Your task to perform on an android device: Open the calendar app, open the side menu, and click the "Day" option Image 0: 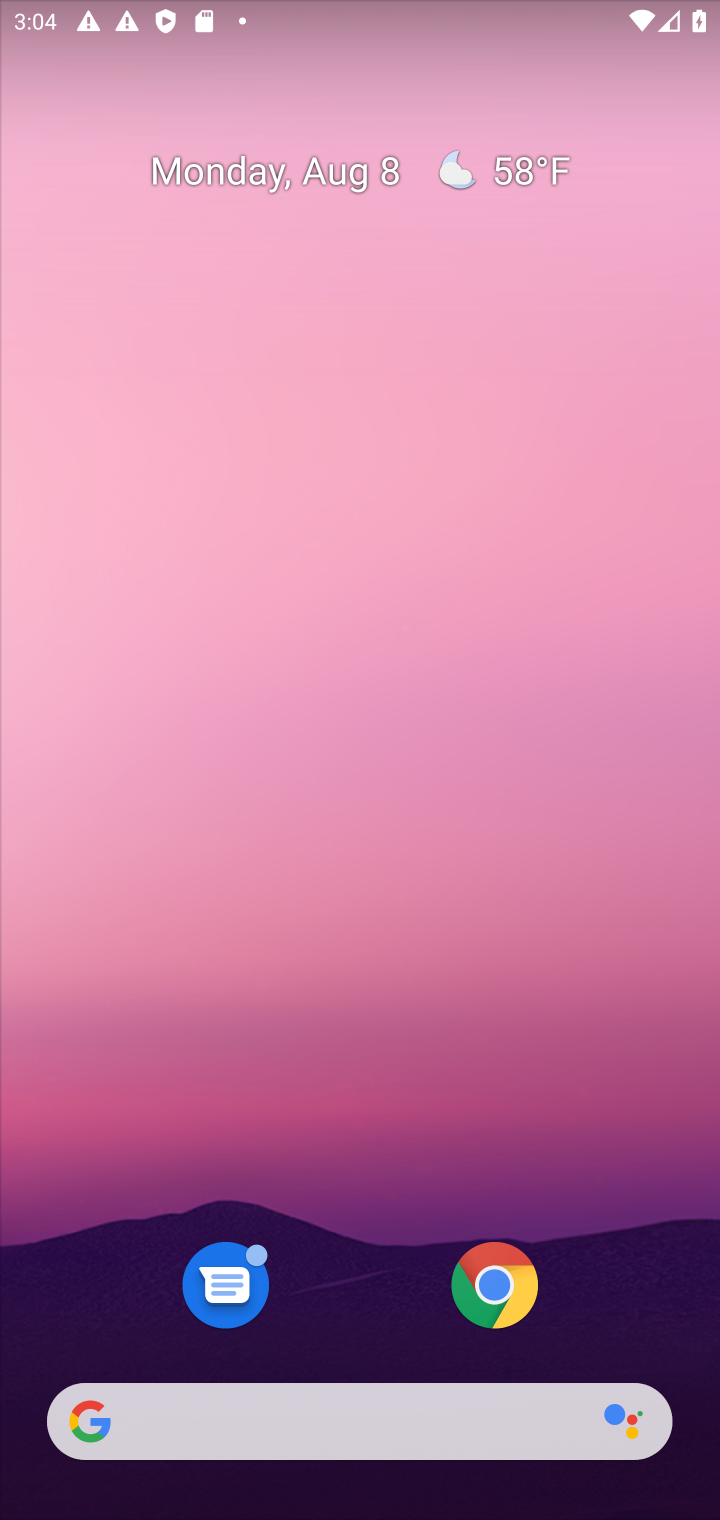
Step 0: drag from (357, 1211) to (514, 288)
Your task to perform on an android device: Open the calendar app, open the side menu, and click the "Day" option Image 1: 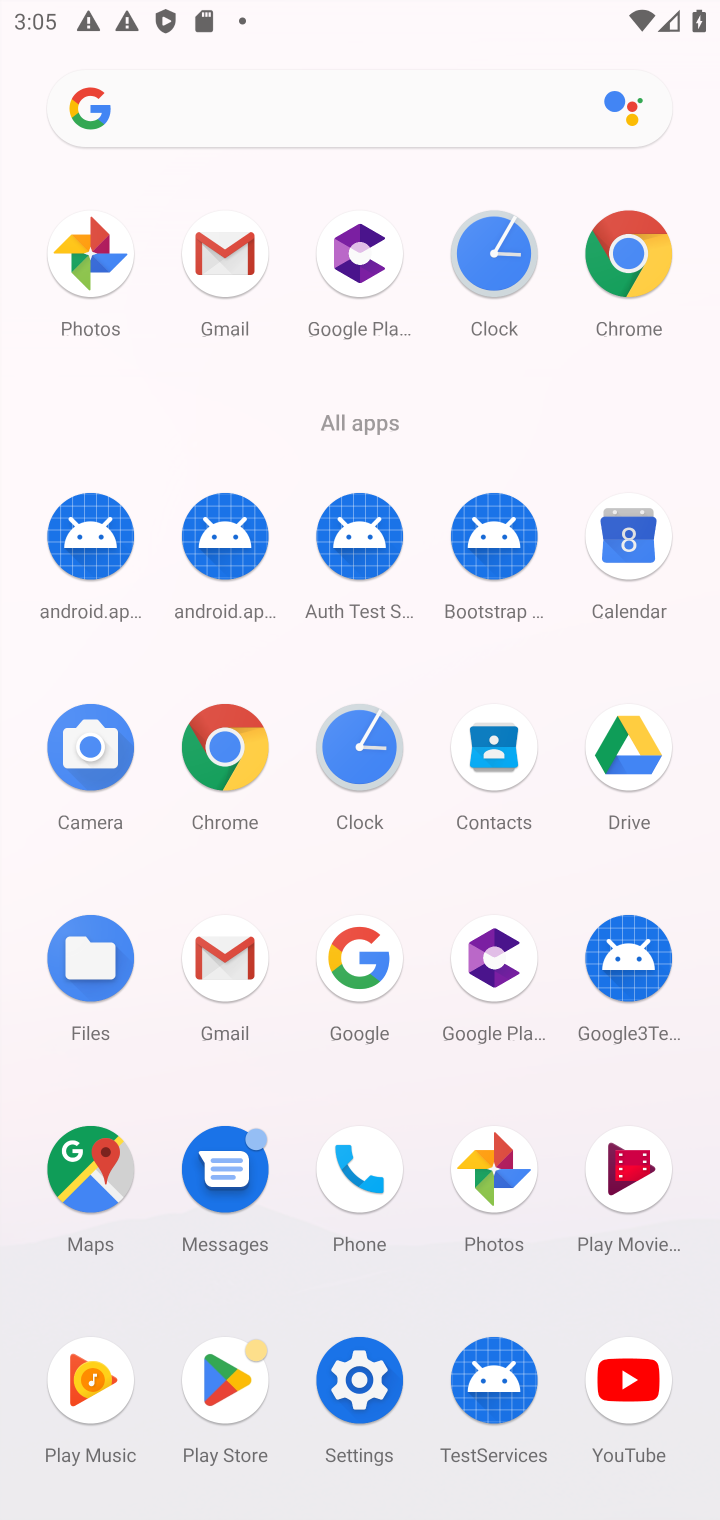
Step 1: click (631, 557)
Your task to perform on an android device: Open the calendar app, open the side menu, and click the "Day" option Image 2: 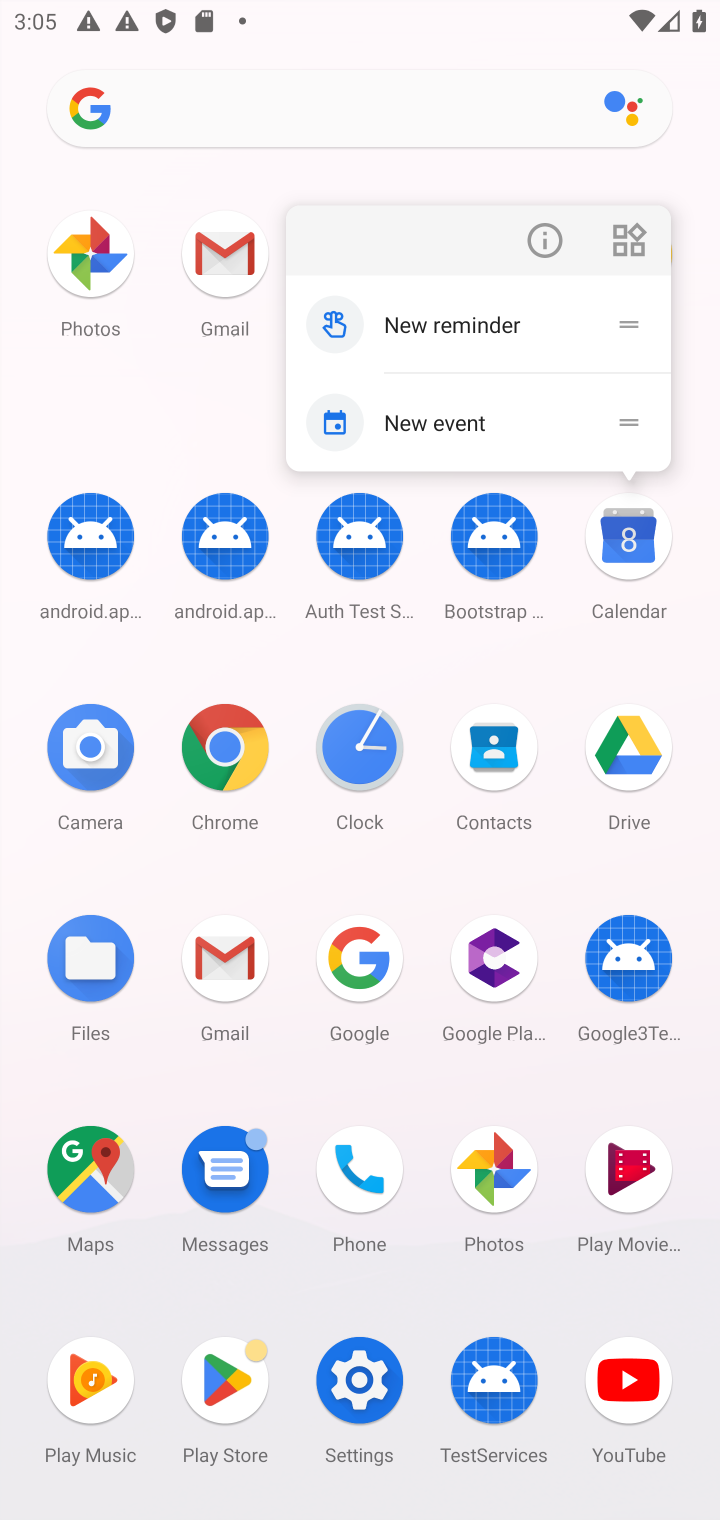
Step 2: click (631, 530)
Your task to perform on an android device: Open the calendar app, open the side menu, and click the "Day" option Image 3: 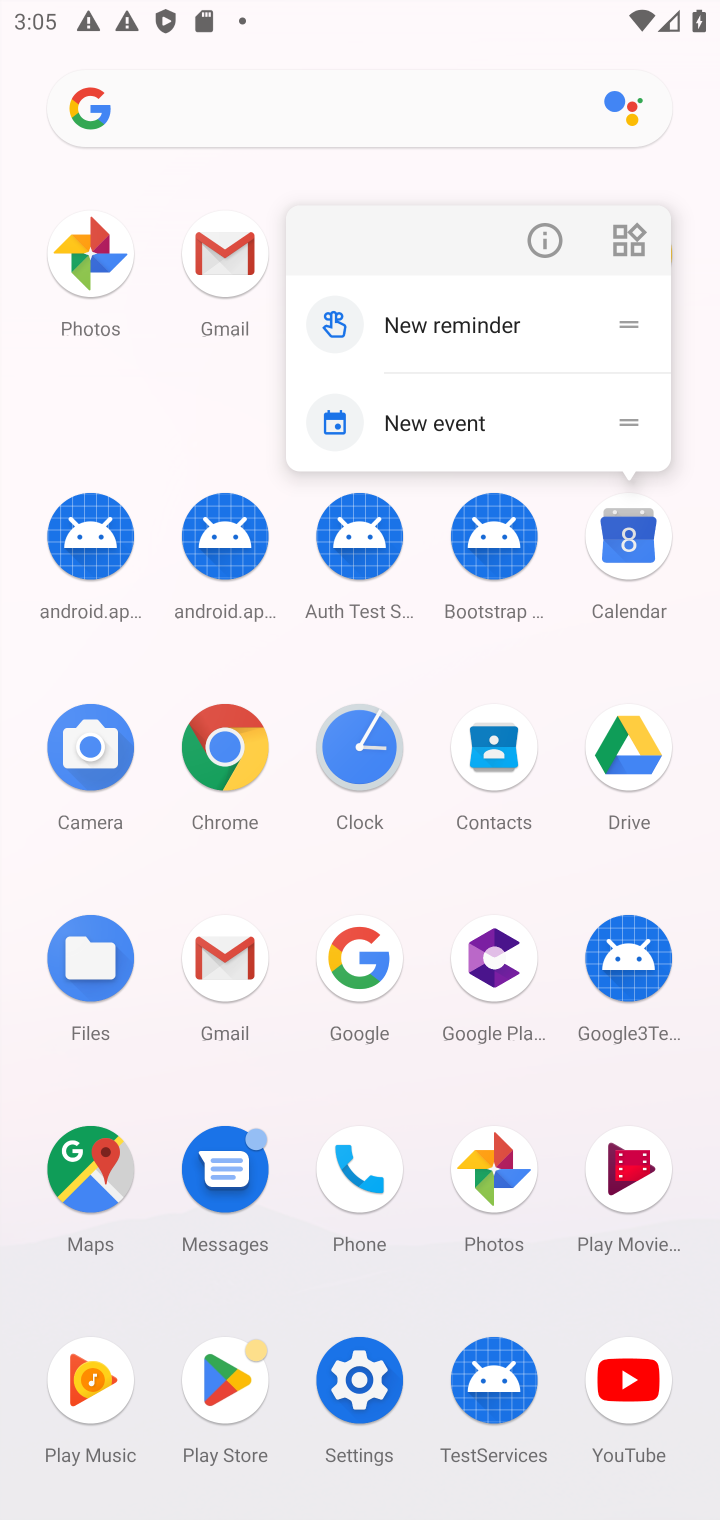
Step 3: click (630, 528)
Your task to perform on an android device: Open the calendar app, open the side menu, and click the "Day" option Image 4: 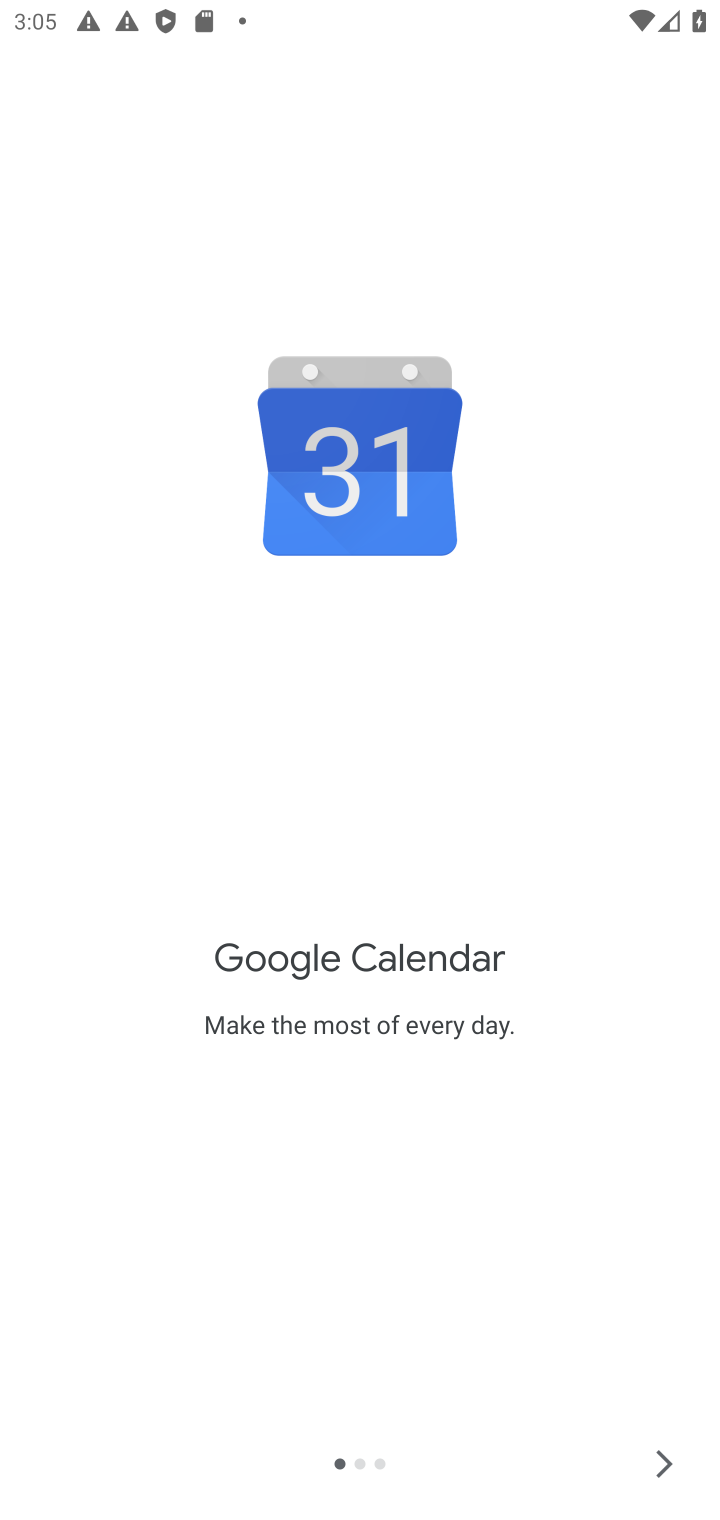
Step 4: click (692, 1467)
Your task to perform on an android device: Open the calendar app, open the side menu, and click the "Day" option Image 5: 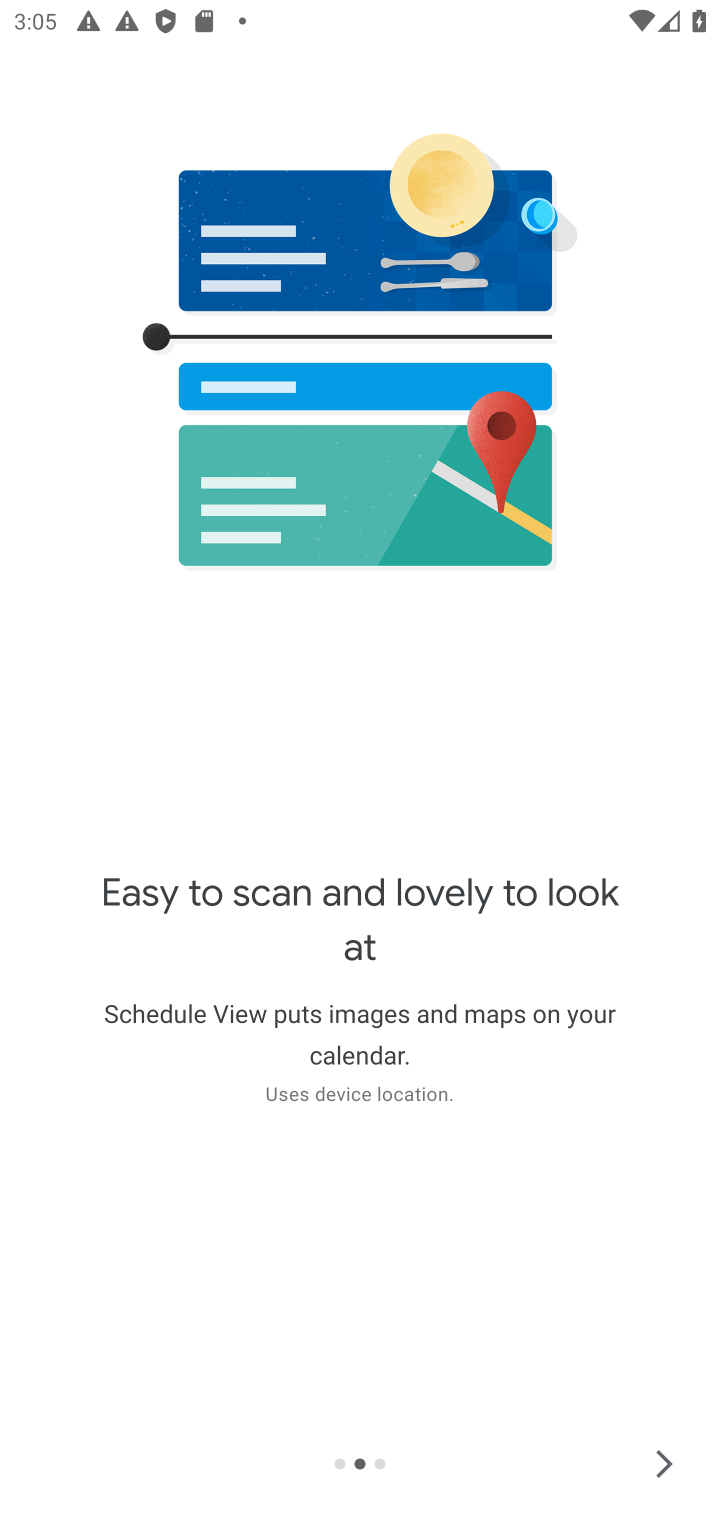
Step 5: click (655, 1451)
Your task to perform on an android device: Open the calendar app, open the side menu, and click the "Day" option Image 6: 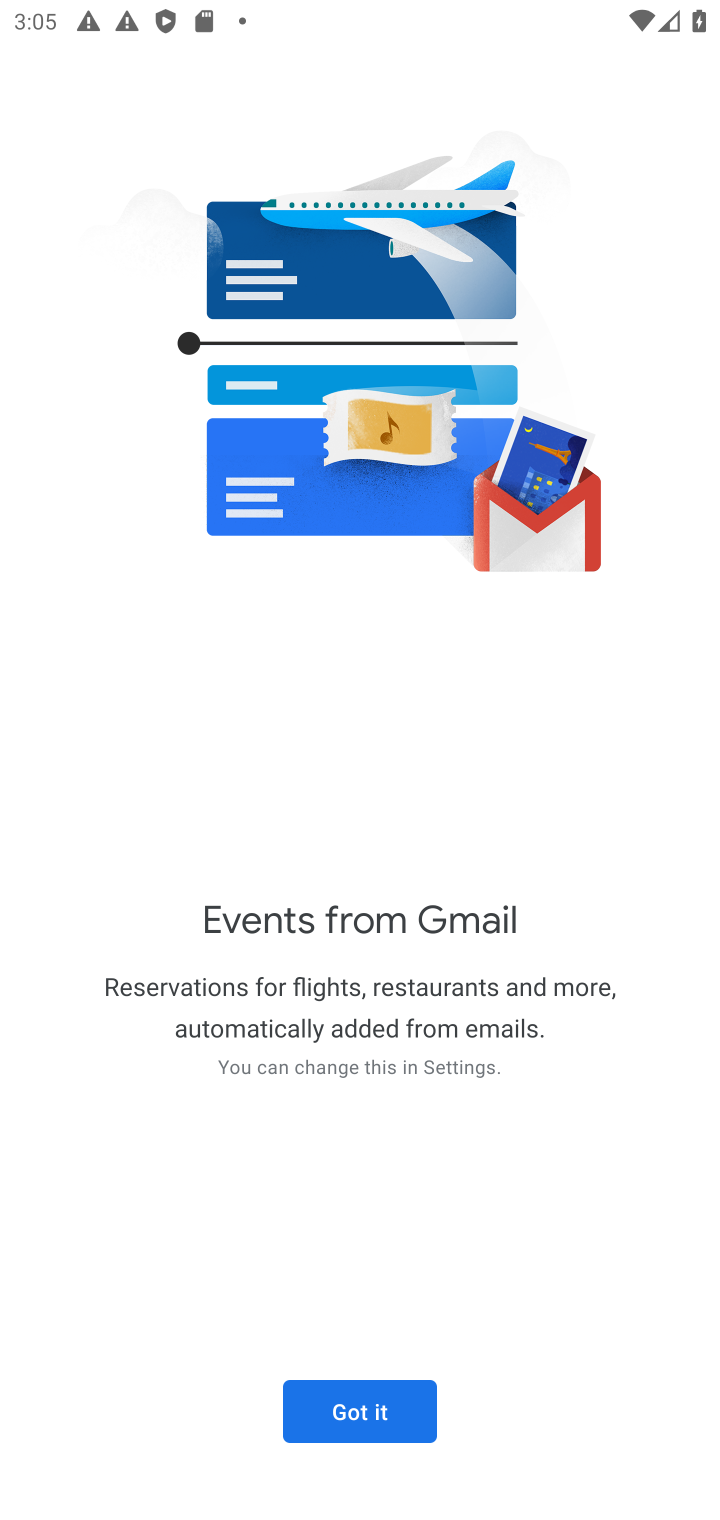
Step 6: click (353, 1414)
Your task to perform on an android device: Open the calendar app, open the side menu, and click the "Day" option Image 7: 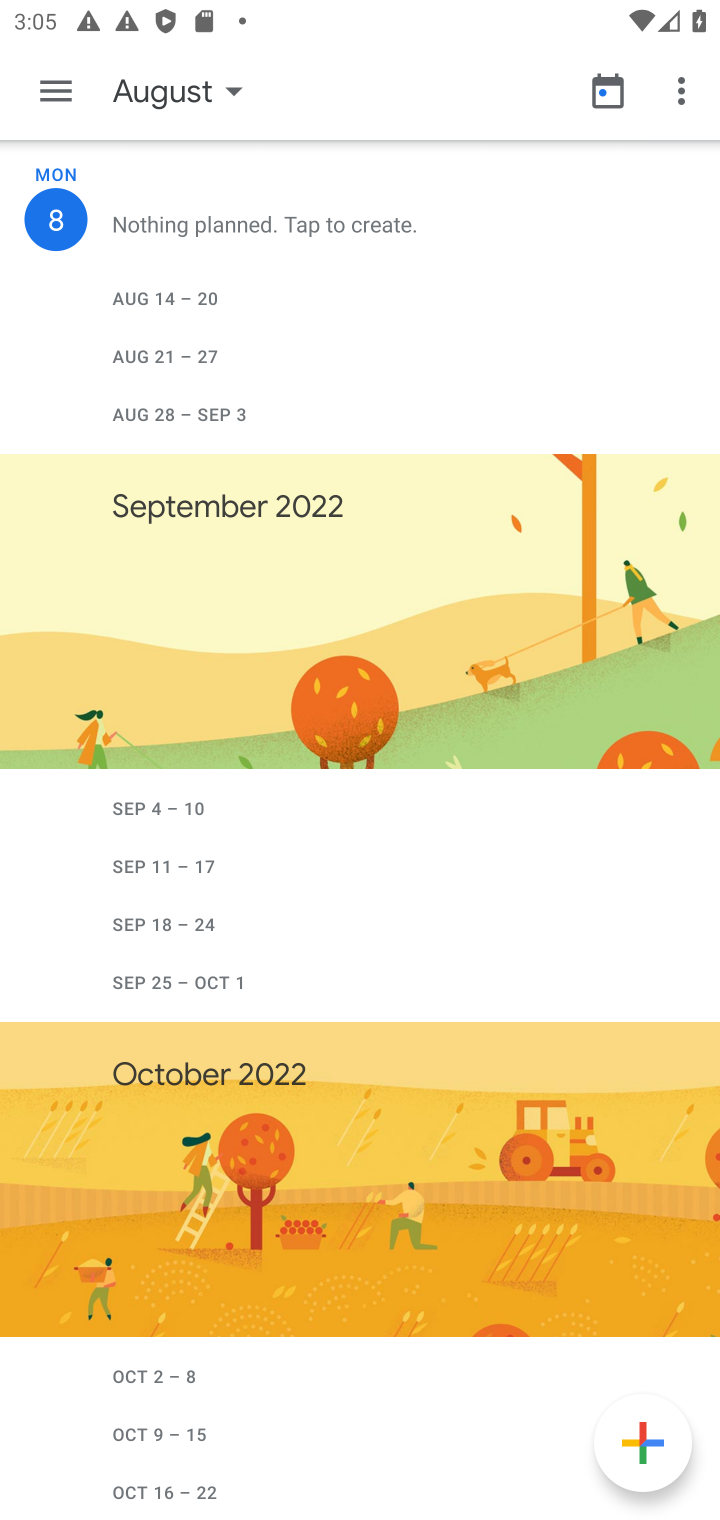
Step 7: click (65, 69)
Your task to perform on an android device: Open the calendar app, open the side menu, and click the "Day" option Image 8: 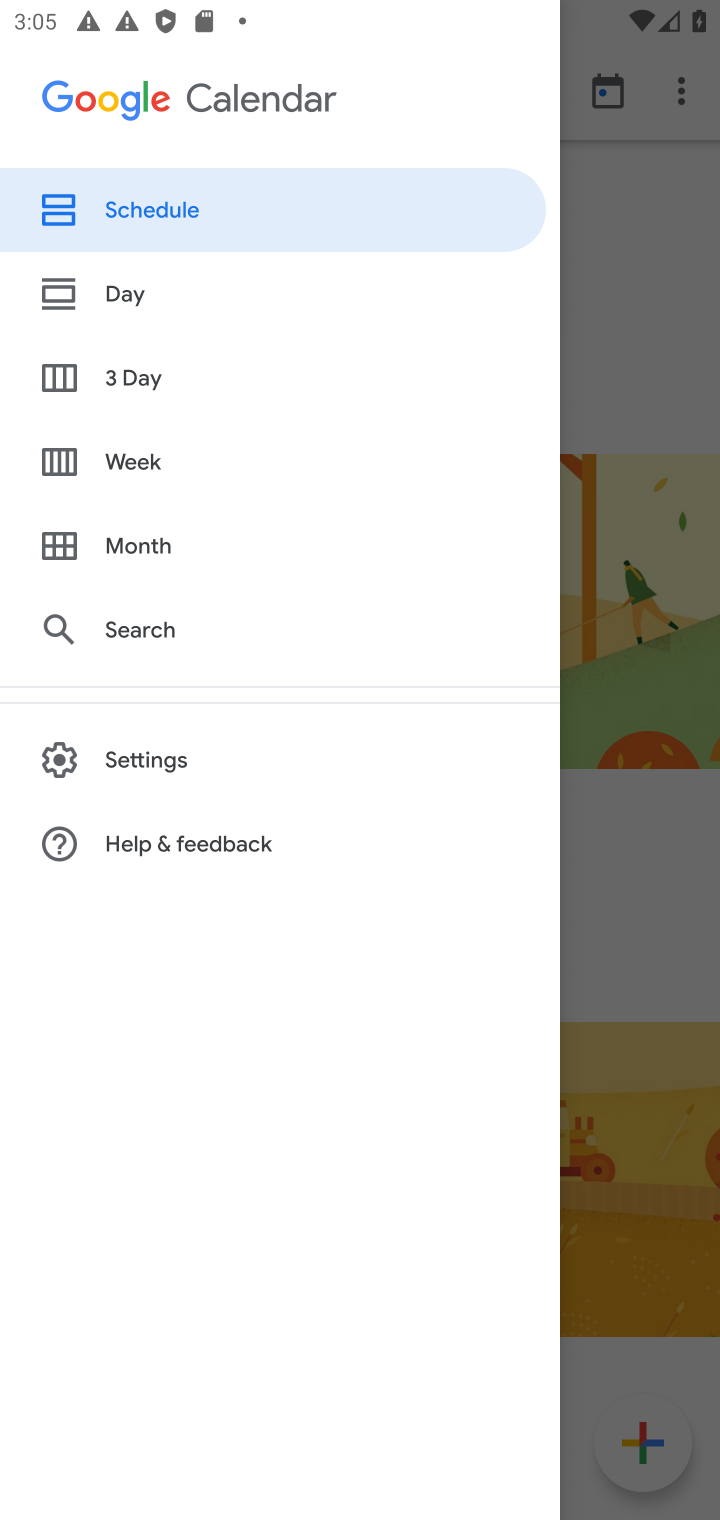
Step 8: click (200, 303)
Your task to perform on an android device: Open the calendar app, open the side menu, and click the "Day" option Image 9: 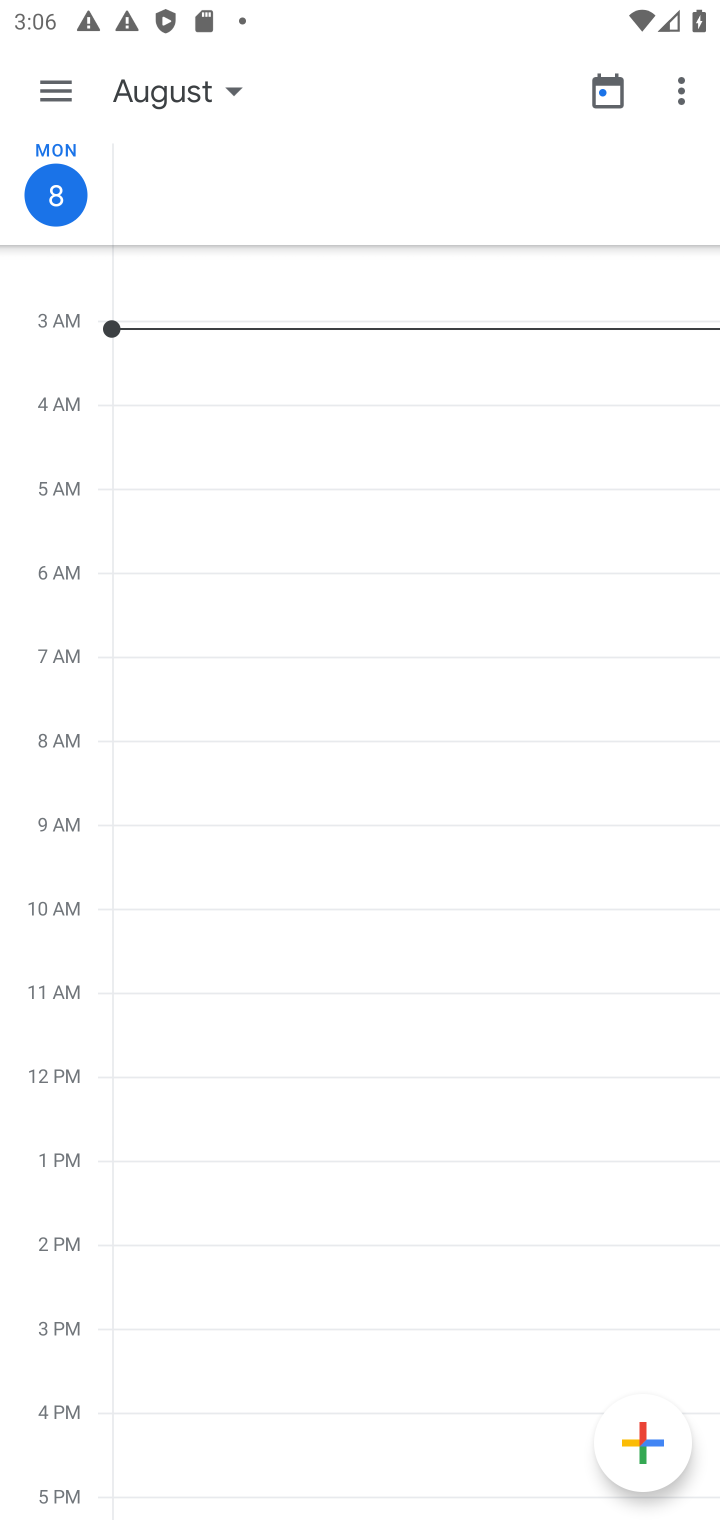
Step 9: task complete